Your task to perform on an android device: Show me popular games on the Play Store Image 0: 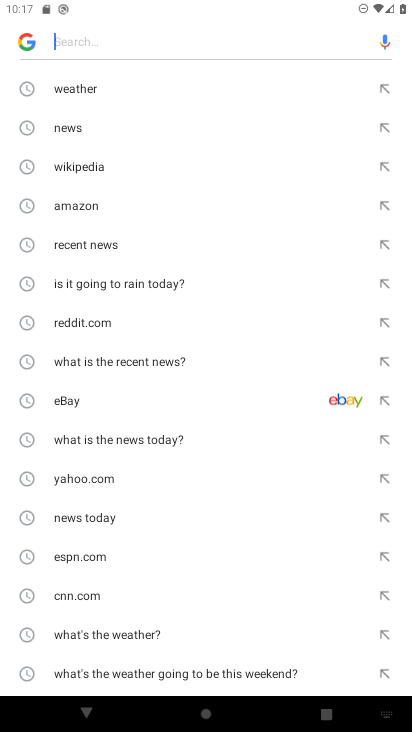
Step 0: press home button
Your task to perform on an android device: Show me popular games on the Play Store Image 1: 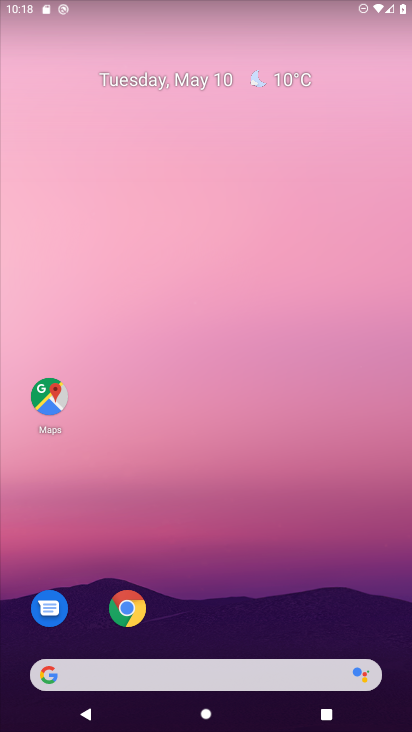
Step 1: drag from (352, 581) to (314, 46)
Your task to perform on an android device: Show me popular games on the Play Store Image 2: 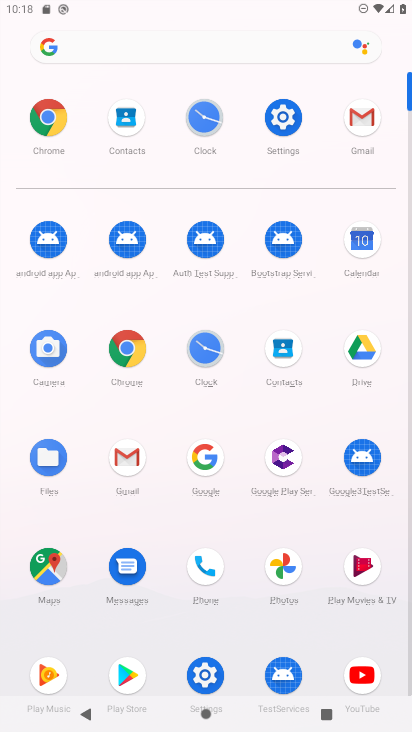
Step 2: click (125, 658)
Your task to perform on an android device: Show me popular games on the Play Store Image 3: 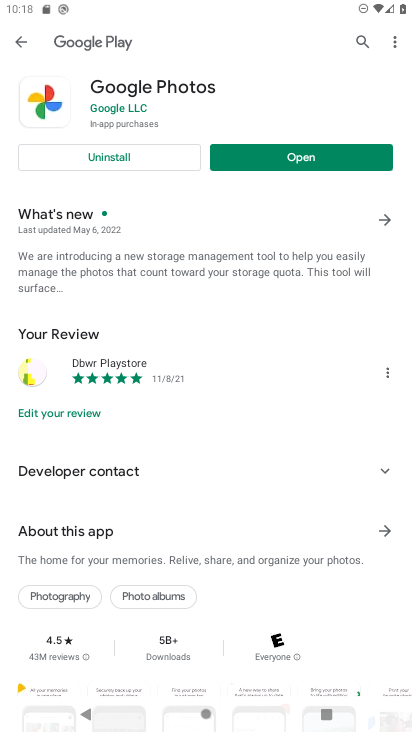
Step 3: press back button
Your task to perform on an android device: Show me popular games on the Play Store Image 4: 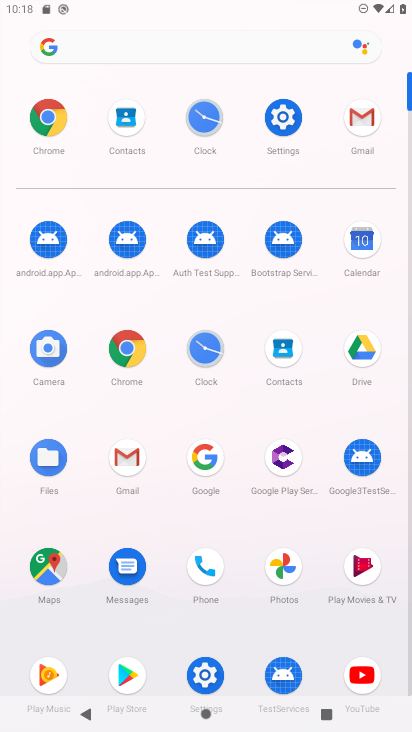
Step 4: click (137, 663)
Your task to perform on an android device: Show me popular games on the Play Store Image 5: 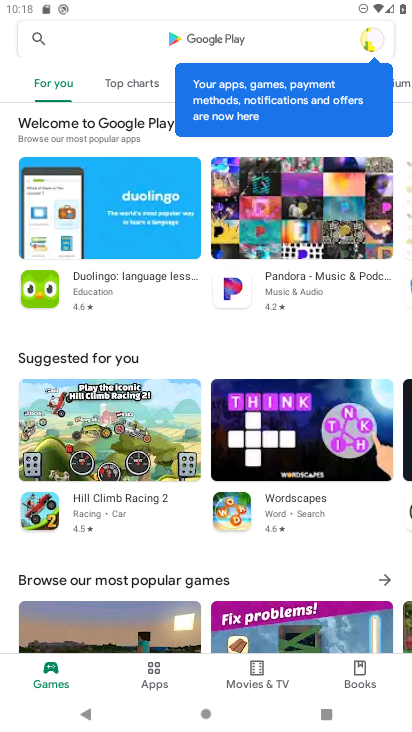
Step 5: click (164, 676)
Your task to perform on an android device: Show me popular games on the Play Store Image 6: 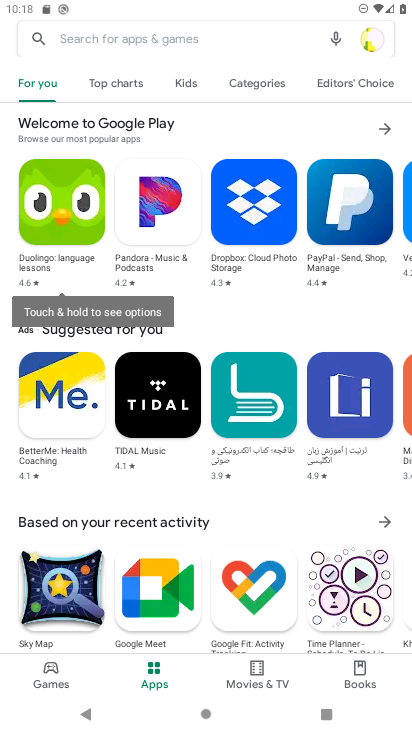
Step 6: click (55, 673)
Your task to perform on an android device: Show me popular games on the Play Store Image 7: 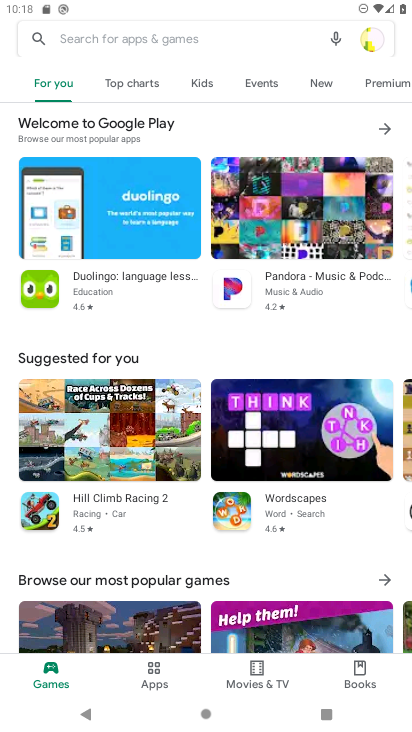
Step 7: click (139, 89)
Your task to perform on an android device: Show me popular games on the Play Store Image 8: 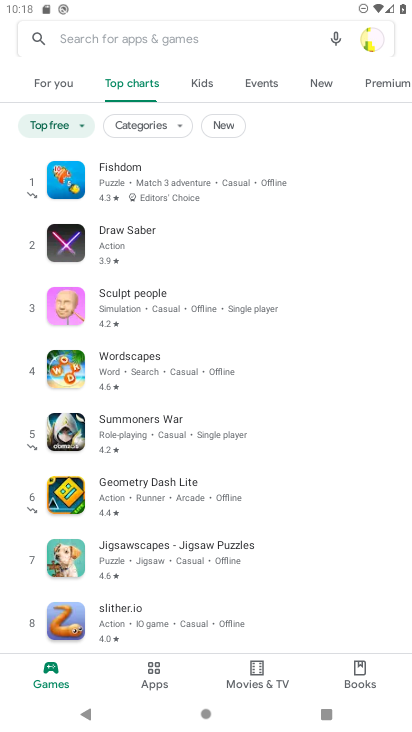
Step 8: click (179, 121)
Your task to perform on an android device: Show me popular games on the Play Store Image 9: 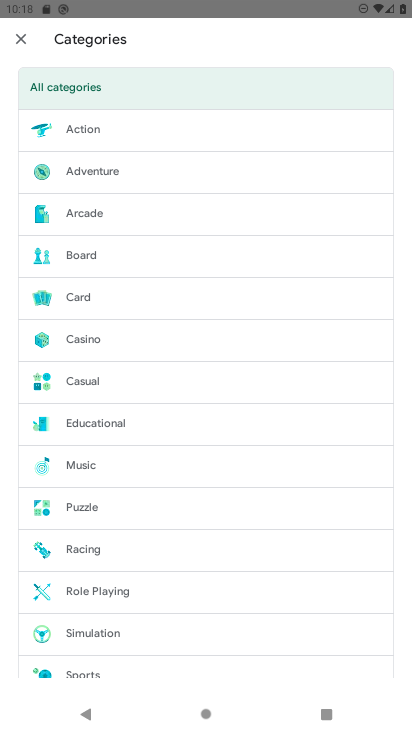
Step 9: click (234, 91)
Your task to perform on an android device: Show me popular games on the Play Store Image 10: 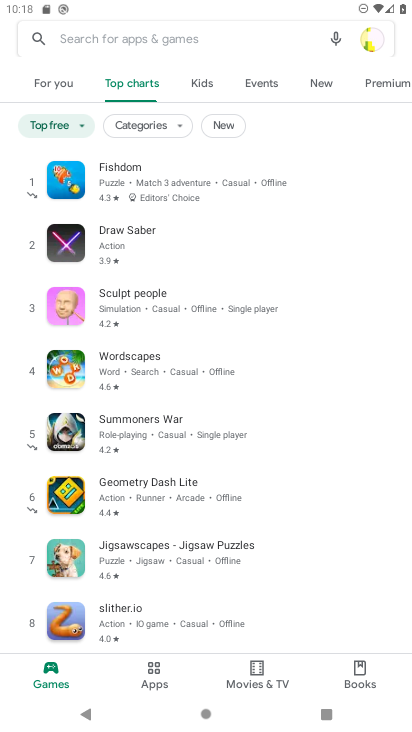
Step 10: task complete